Your task to perform on an android device: turn notification dots off Image 0: 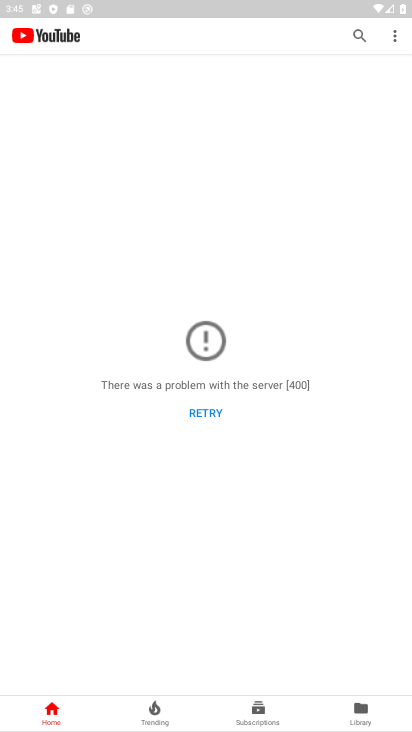
Step 0: press back button
Your task to perform on an android device: turn notification dots off Image 1: 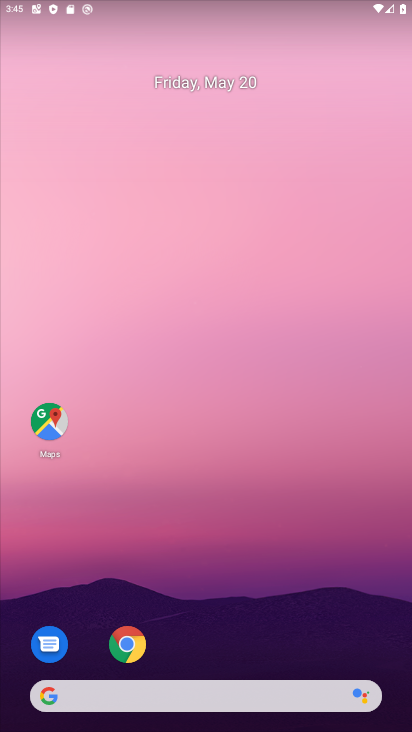
Step 1: drag from (274, 604) to (288, 213)
Your task to perform on an android device: turn notification dots off Image 2: 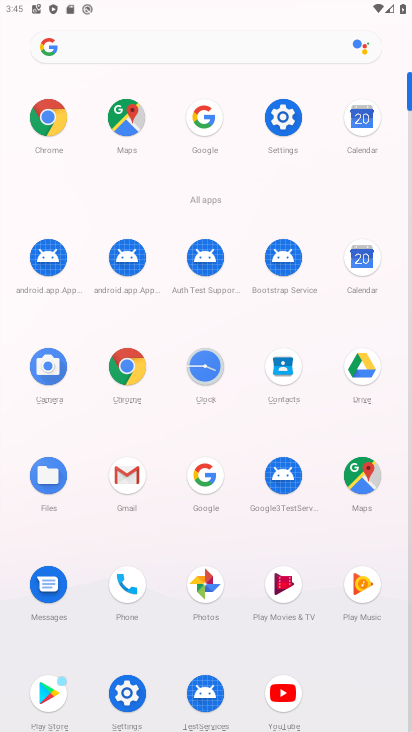
Step 2: click (282, 124)
Your task to perform on an android device: turn notification dots off Image 3: 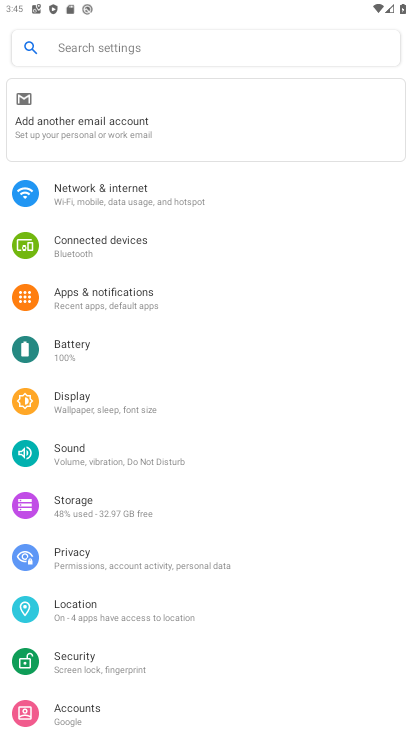
Step 3: click (157, 295)
Your task to perform on an android device: turn notification dots off Image 4: 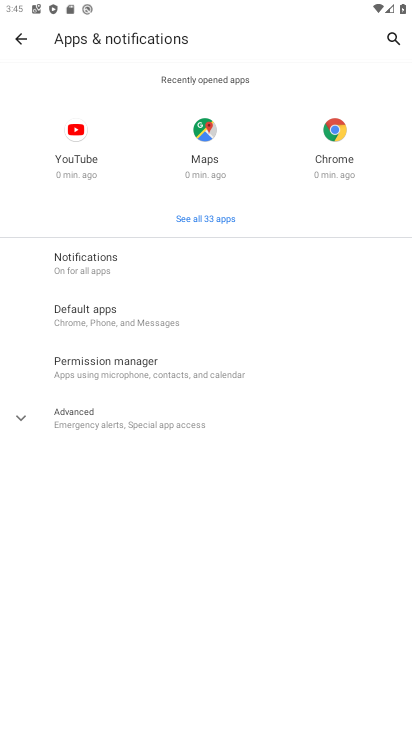
Step 4: click (130, 414)
Your task to perform on an android device: turn notification dots off Image 5: 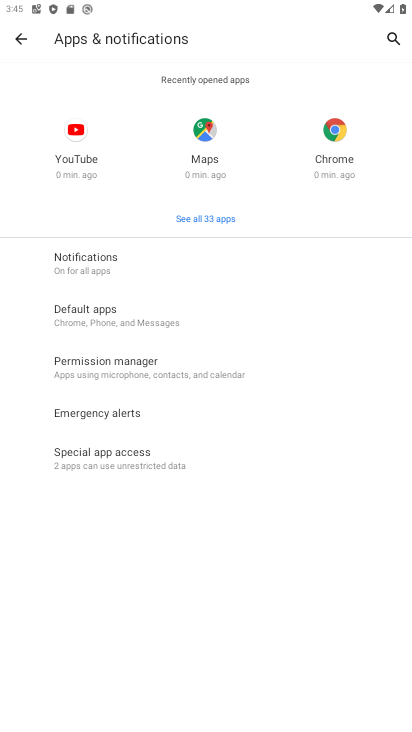
Step 5: click (186, 272)
Your task to perform on an android device: turn notification dots off Image 6: 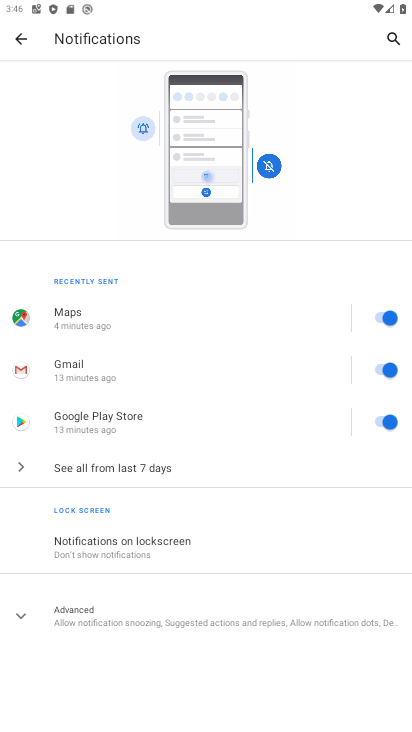
Step 6: click (23, 618)
Your task to perform on an android device: turn notification dots off Image 7: 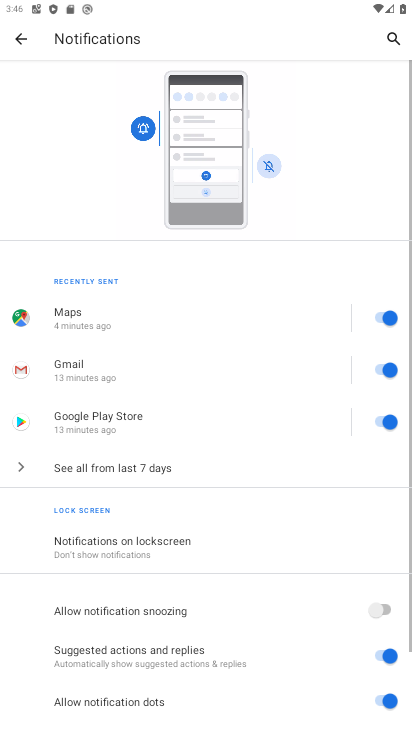
Step 7: drag from (223, 628) to (256, 447)
Your task to perform on an android device: turn notification dots off Image 8: 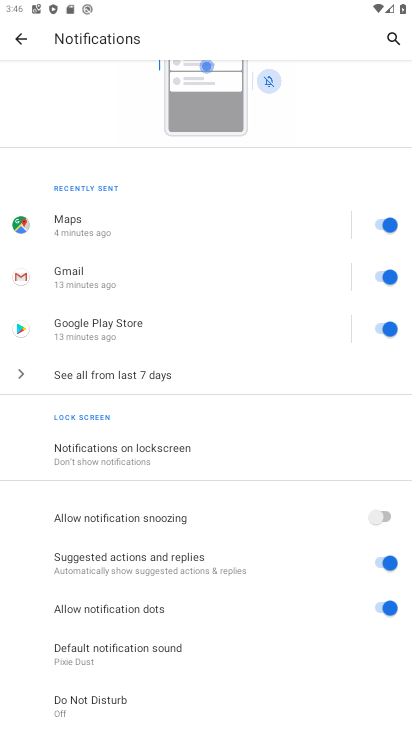
Step 8: click (394, 609)
Your task to perform on an android device: turn notification dots off Image 9: 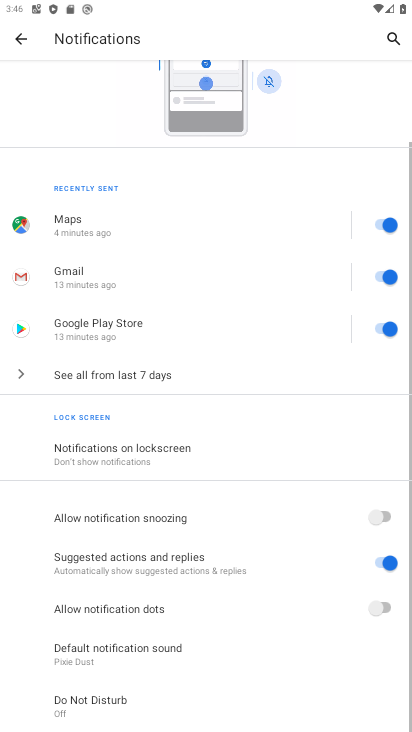
Step 9: task complete